Your task to perform on an android device: turn off data saver in the chrome app Image 0: 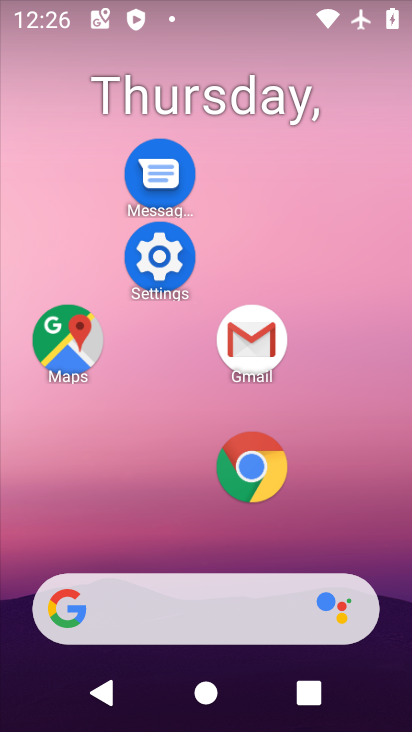
Step 0: drag from (194, 536) to (327, 150)
Your task to perform on an android device: turn off data saver in the chrome app Image 1: 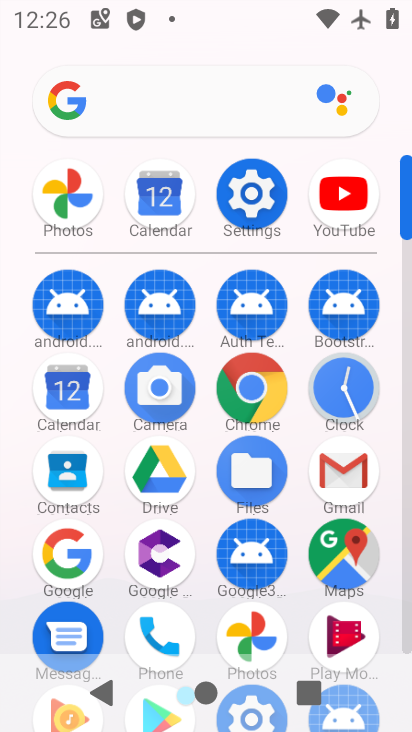
Step 1: click (263, 374)
Your task to perform on an android device: turn off data saver in the chrome app Image 2: 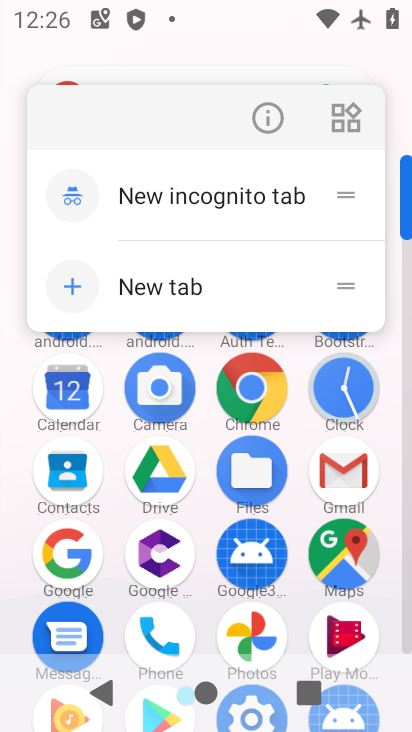
Step 2: click (265, 125)
Your task to perform on an android device: turn off data saver in the chrome app Image 3: 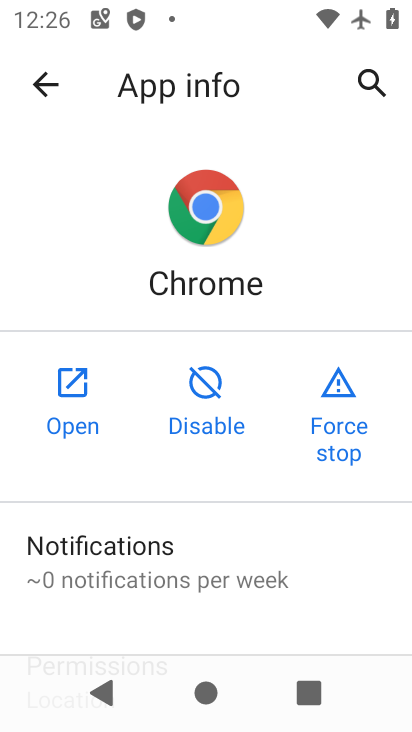
Step 3: click (66, 390)
Your task to perform on an android device: turn off data saver in the chrome app Image 4: 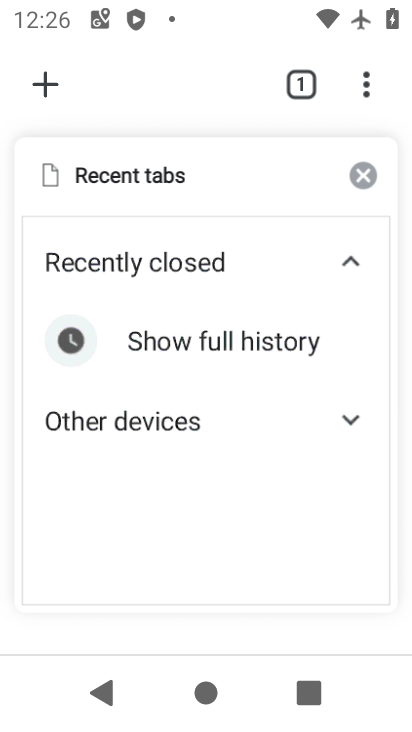
Step 4: drag from (223, 553) to (283, 345)
Your task to perform on an android device: turn off data saver in the chrome app Image 5: 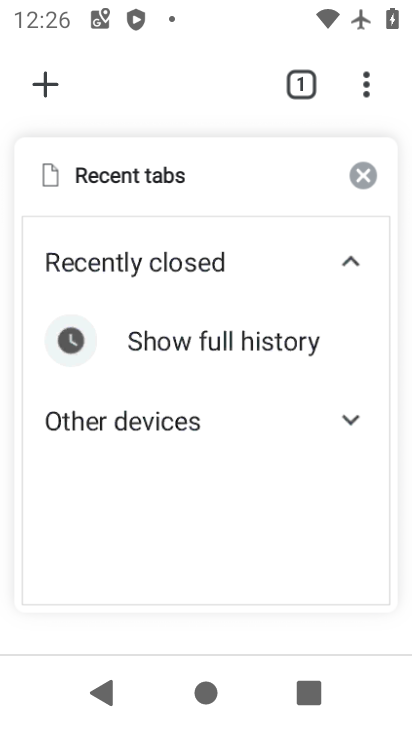
Step 5: click (362, 87)
Your task to perform on an android device: turn off data saver in the chrome app Image 6: 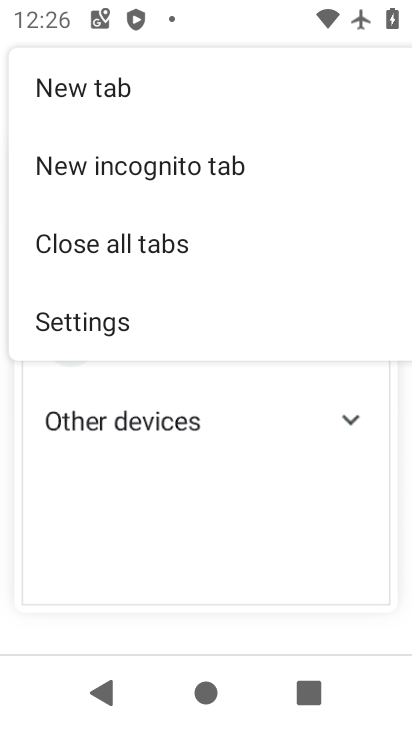
Step 6: click (95, 318)
Your task to perform on an android device: turn off data saver in the chrome app Image 7: 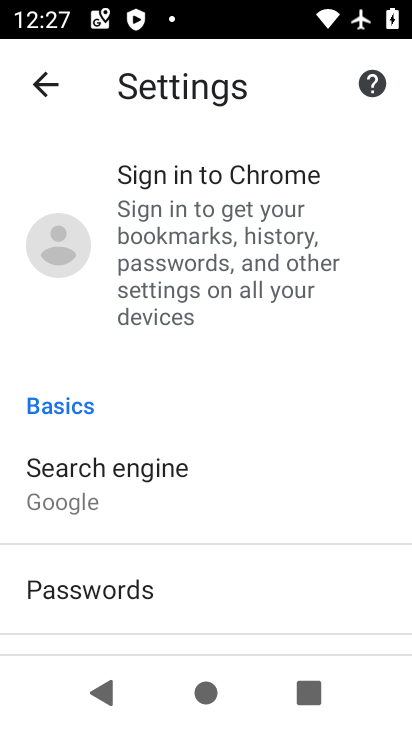
Step 7: drag from (196, 354) to (241, 186)
Your task to perform on an android device: turn off data saver in the chrome app Image 8: 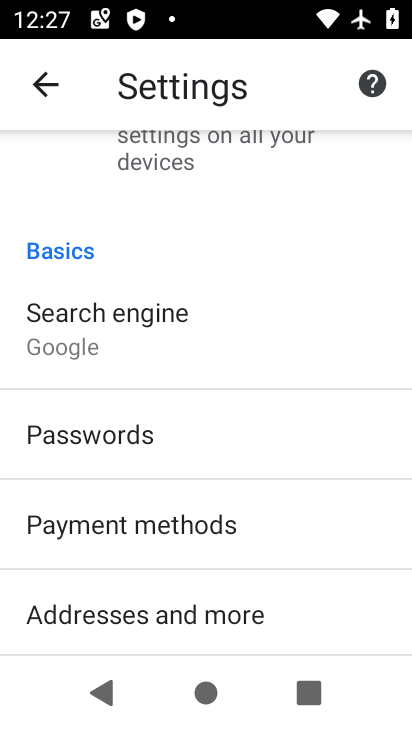
Step 8: drag from (154, 545) to (221, 168)
Your task to perform on an android device: turn off data saver in the chrome app Image 9: 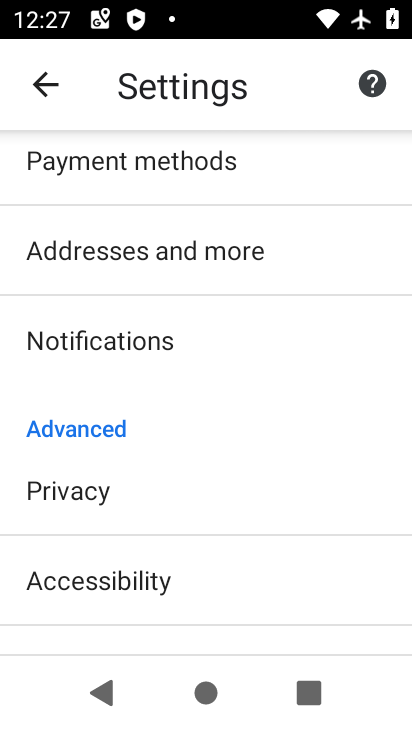
Step 9: drag from (185, 589) to (258, 75)
Your task to perform on an android device: turn off data saver in the chrome app Image 10: 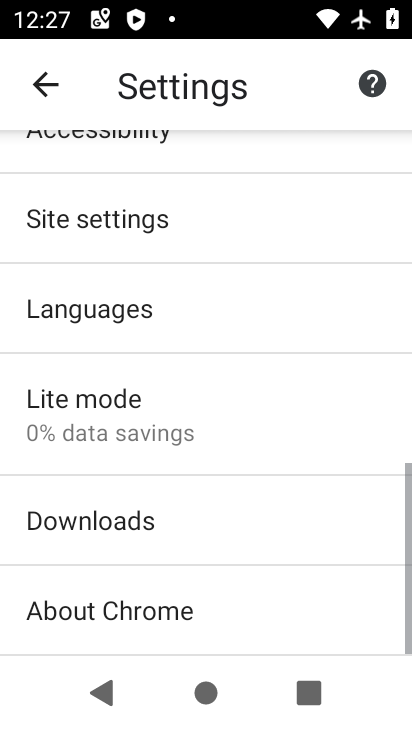
Step 10: click (146, 410)
Your task to perform on an android device: turn off data saver in the chrome app Image 11: 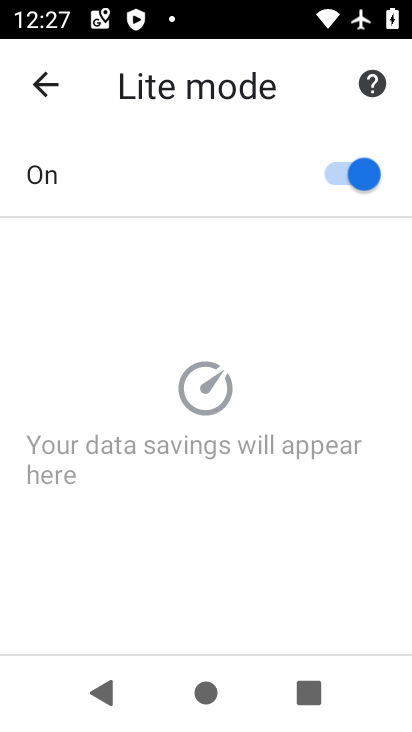
Step 11: click (353, 156)
Your task to perform on an android device: turn off data saver in the chrome app Image 12: 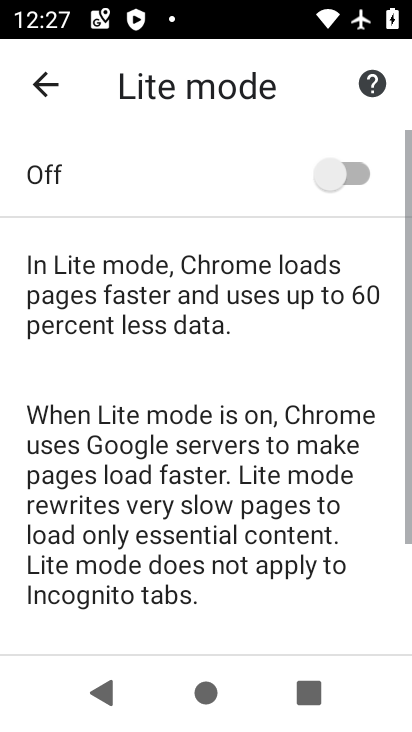
Step 12: task complete